Your task to perform on an android device: uninstall "TextNow: Call + Text Unlimited" Image 0: 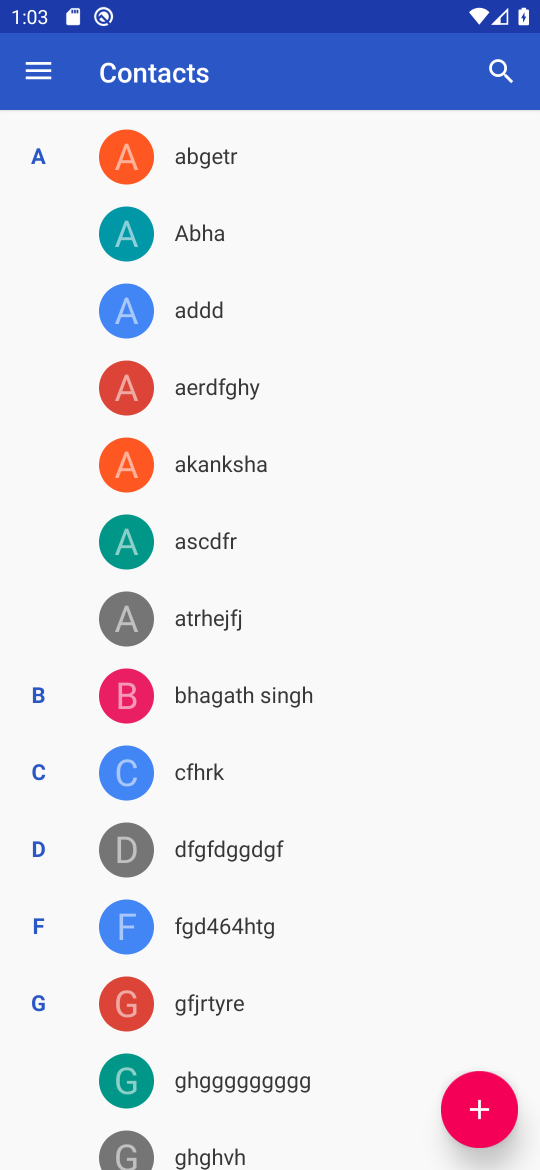
Step 0: press home button
Your task to perform on an android device: uninstall "TextNow: Call + Text Unlimited" Image 1: 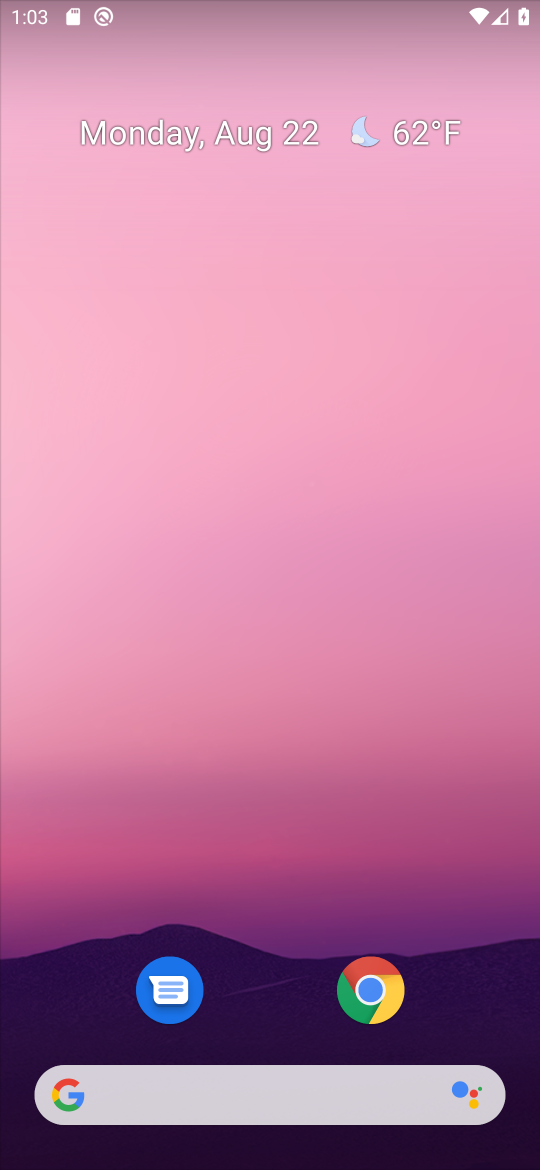
Step 1: drag from (286, 796) to (308, 289)
Your task to perform on an android device: uninstall "TextNow: Call + Text Unlimited" Image 2: 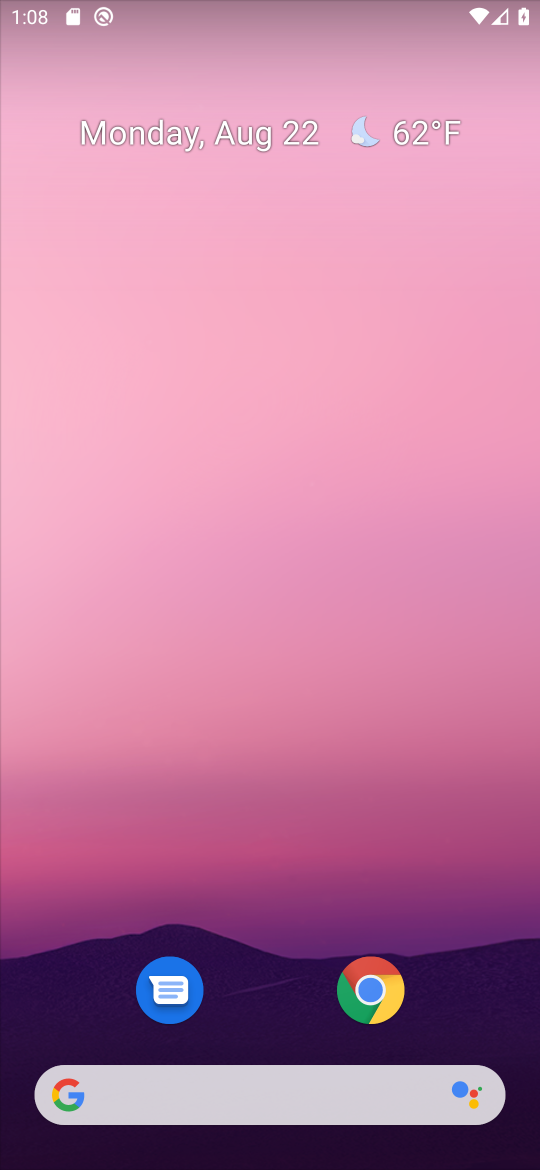
Step 2: drag from (245, 862) to (216, 255)
Your task to perform on an android device: uninstall "TextNow: Call + Text Unlimited" Image 3: 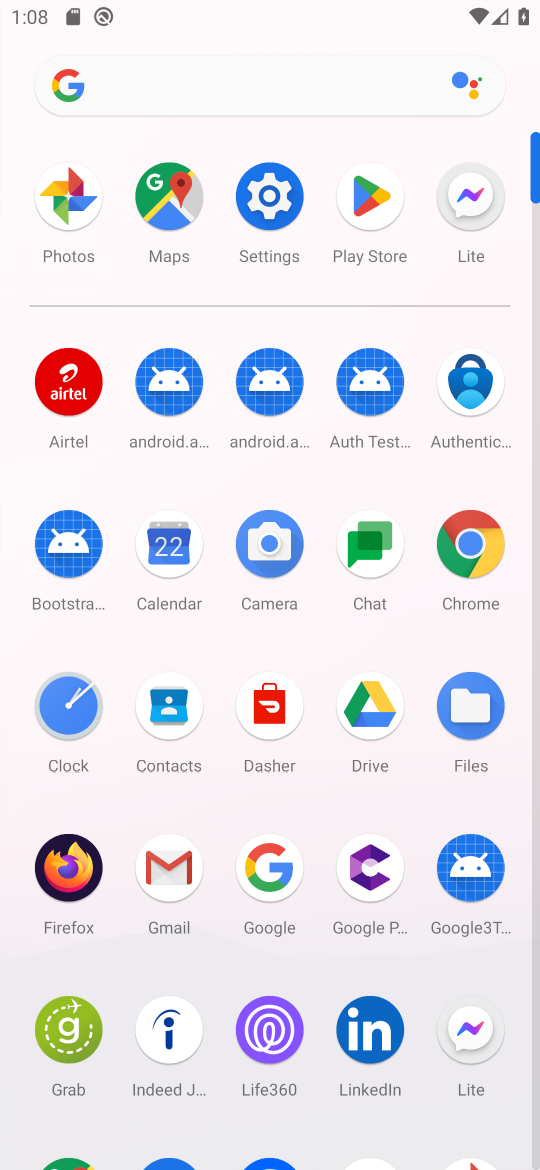
Step 3: click (364, 180)
Your task to perform on an android device: uninstall "TextNow: Call + Text Unlimited" Image 4: 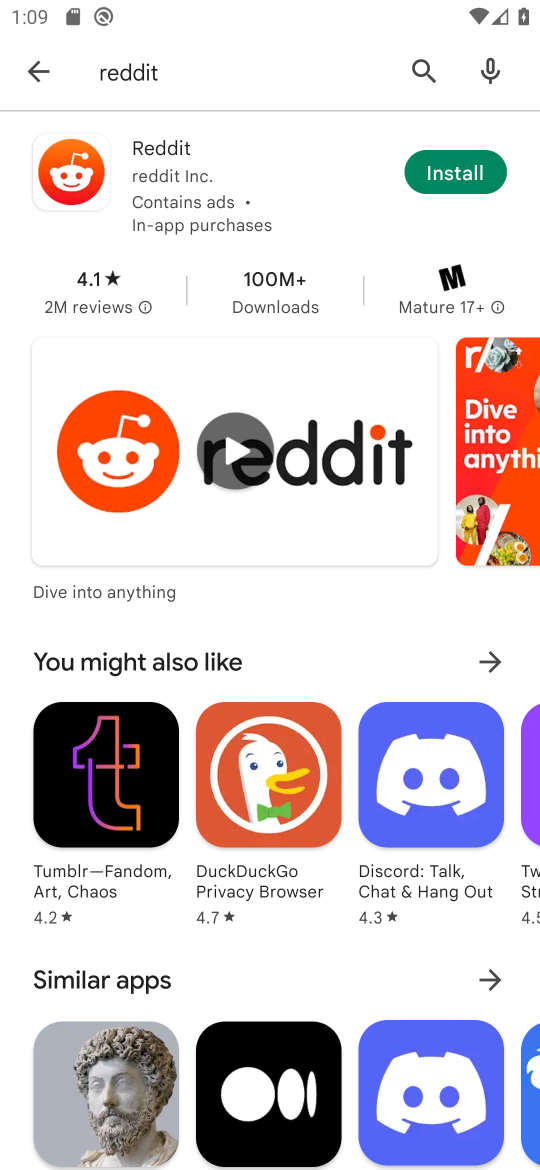
Step 4: click (415, 72)
Your task to perform on an android device: uninstall "TextNow: Call + Text Unlimited" Image 5: 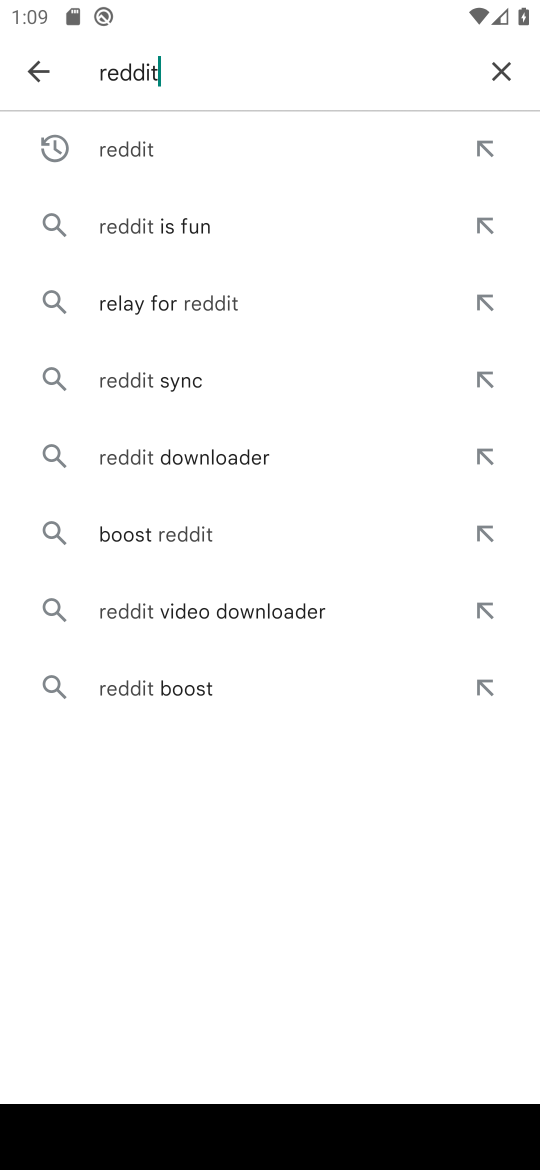
Step 5: click (502, 72)
Your task to perform on an android device: uninstall "TextNow: Call + Text Unlimited" Image 6: 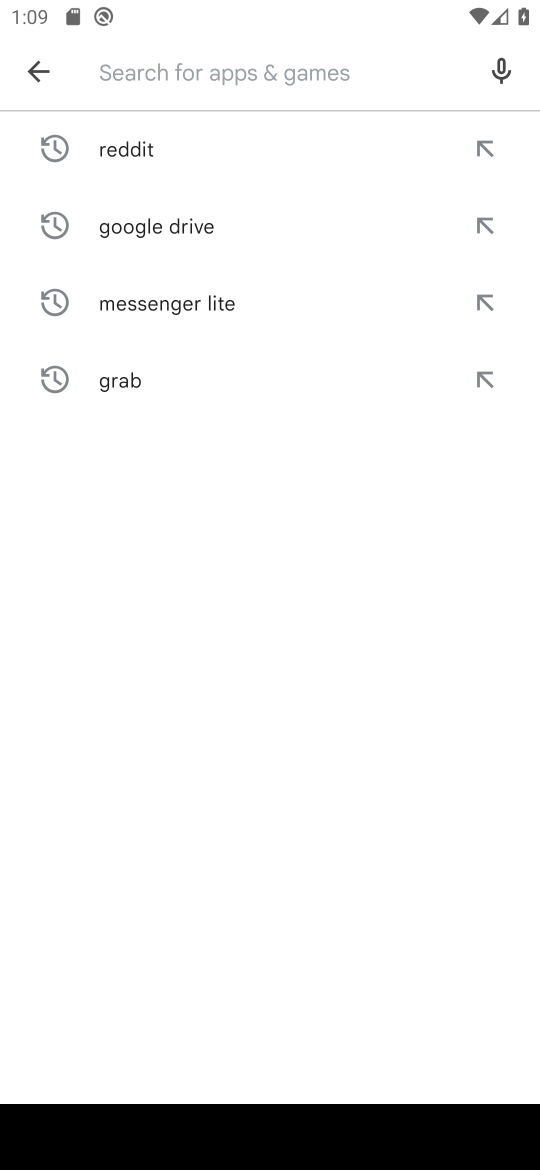
Step 6: type "TextNow: Call + Text Unlimited"
Your task to perform on an android device: uninstall "TextNow: Call + Text Unlimited" Image 7: 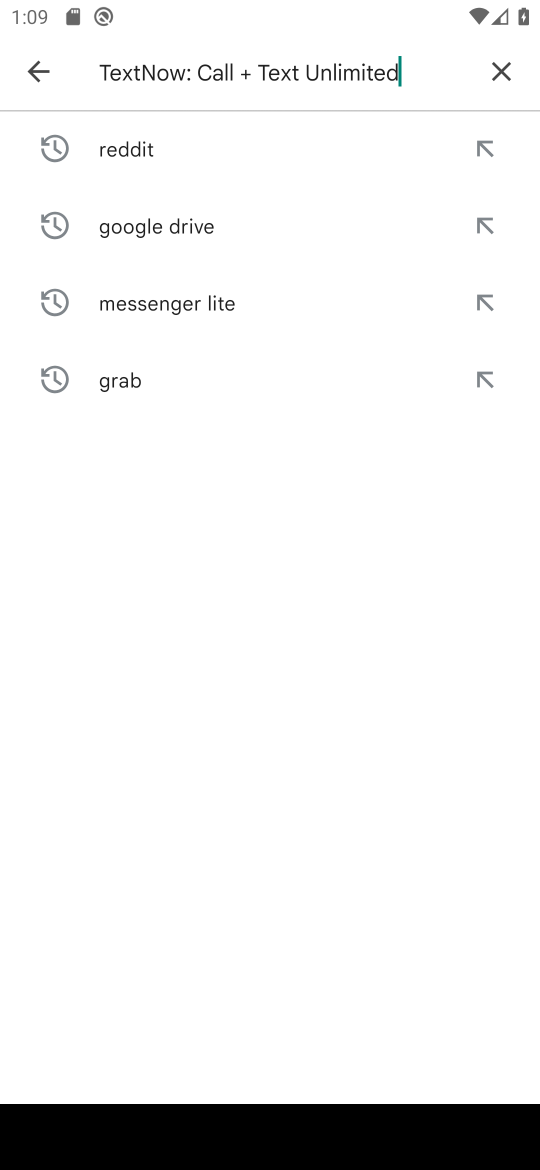
Step 7: type ""
Your task to perform on an android device: uninstall "TextNow: Call + Text Unlimited" Image 8: 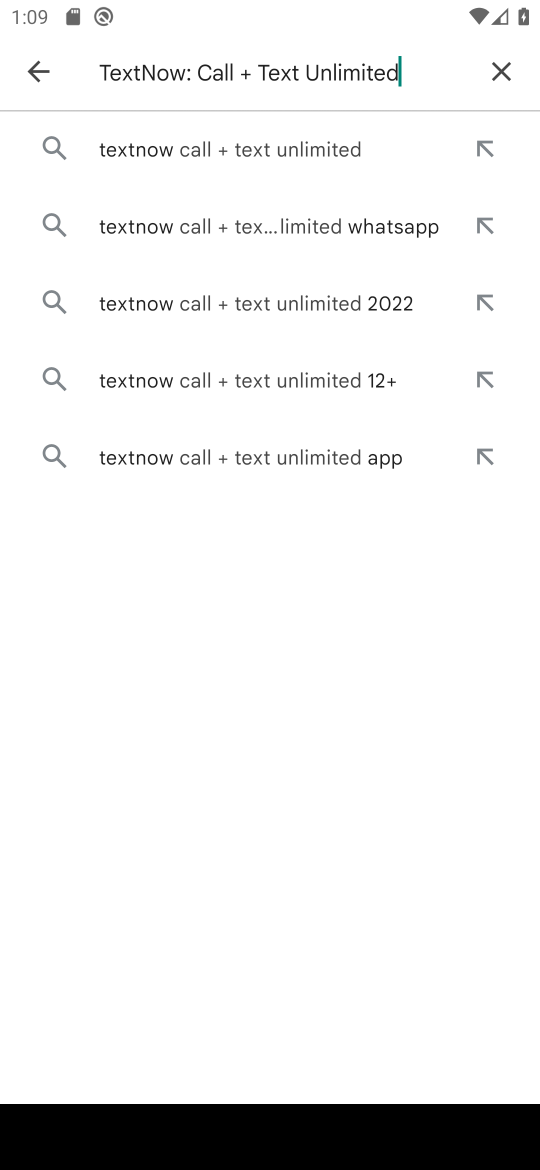
Step 8: click (176, 147)
Your task to perform on an android device: uninstall "TextNow: Call + Text Unlimited" Image 9: 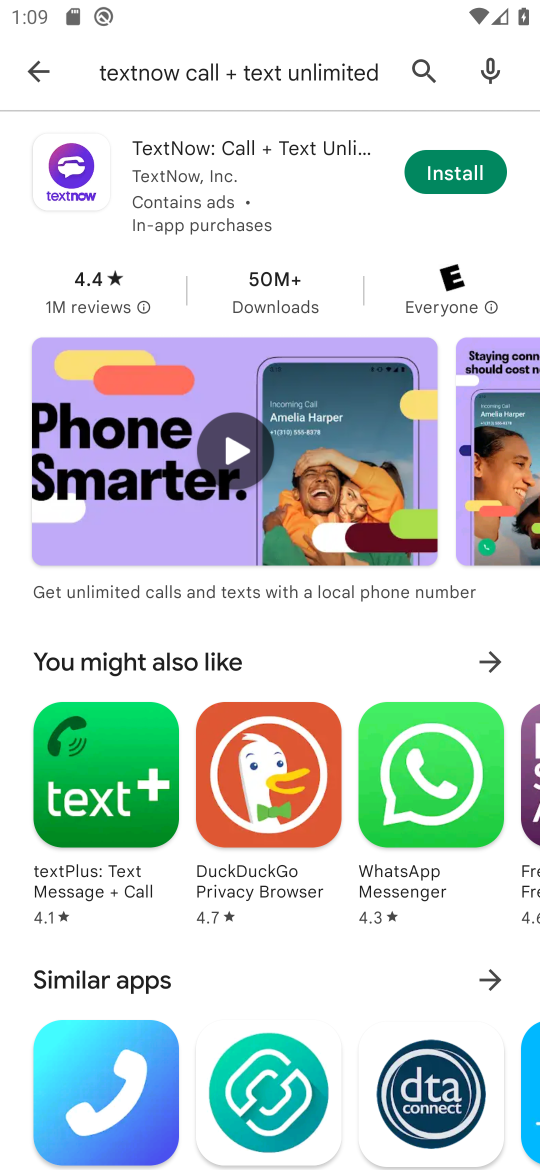
Step 9: task complete